Your task to perform on an android device: open app "Firefox Browser" (install if not already installed) Image 0: 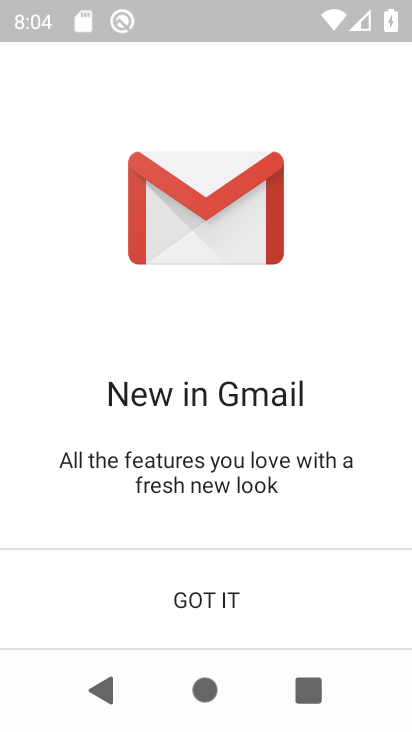
Step 0: press home button
Your task to perform on an android device: open app "Firefox Browser" (install if not already installed) Image 1: 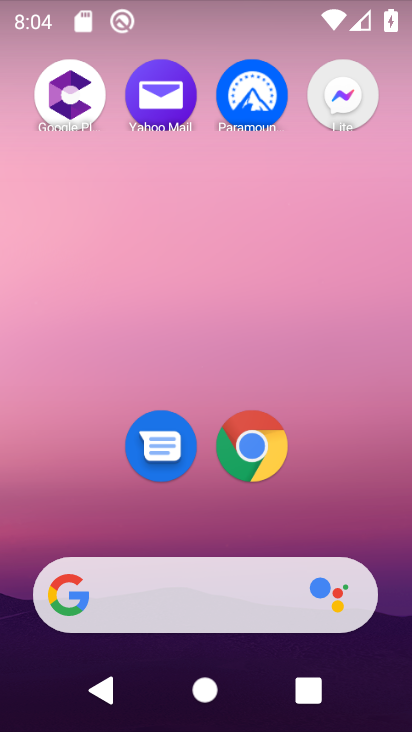
Step 1: drag from (211, 507) to (200, 114)
Your task to perform on an android device: open app "Firefox Browser" (install if not already installed) Image 2: 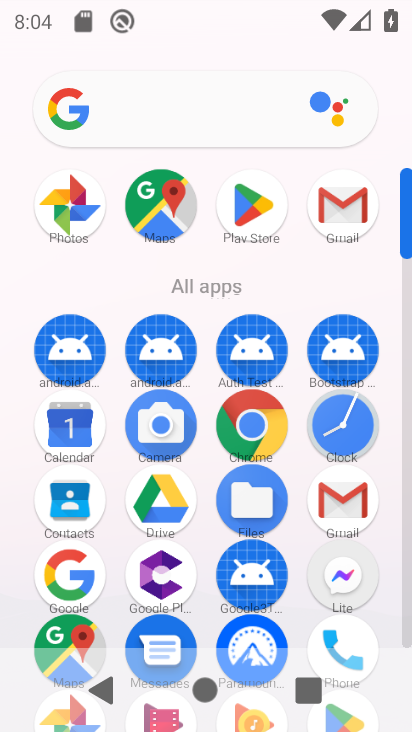
Step 2: click (248, 223)
Your task to perform on an android device: open app "Firefox Browser" (install if not already installed) Image 3: 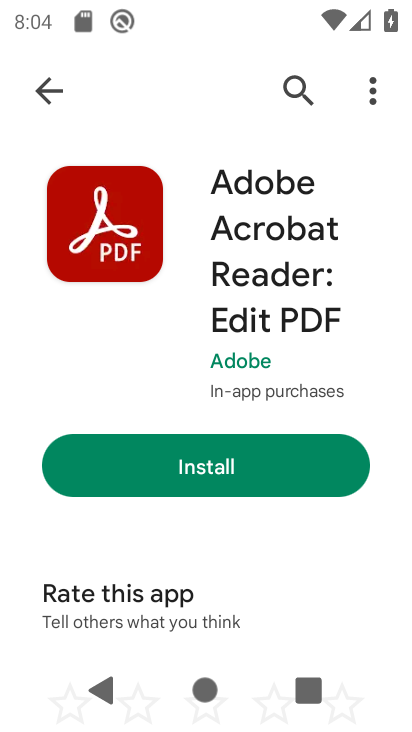
Step 3: click (305, 79)
Your task to perform on an android device: open app "Firefox Browser" (install if not already installed) Image 4: 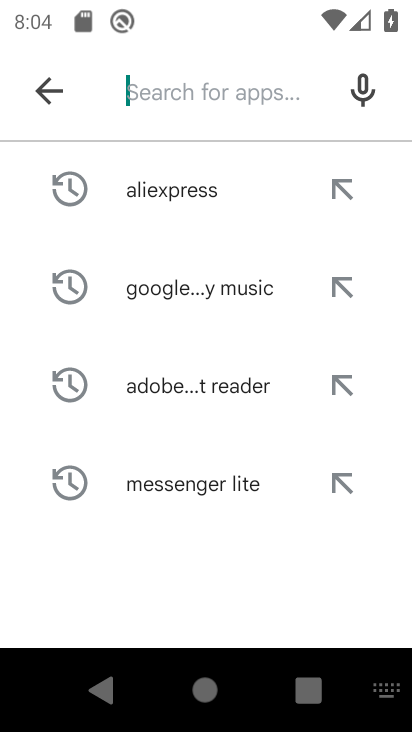
Step 4: type "Firefox Browser"
Your task to perform on an android device: open app "Firefox Browser" (install if not already installed) Image 5: 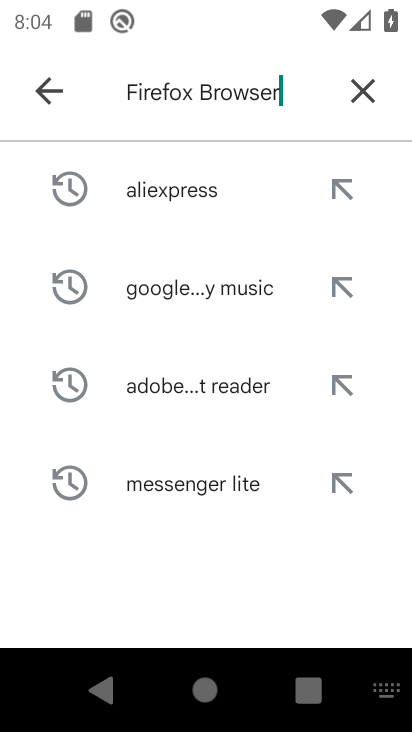
Step 5: type ""
Your task to perform on an android device: open app "Firefox Browser" (install if not already installed) Image 6: 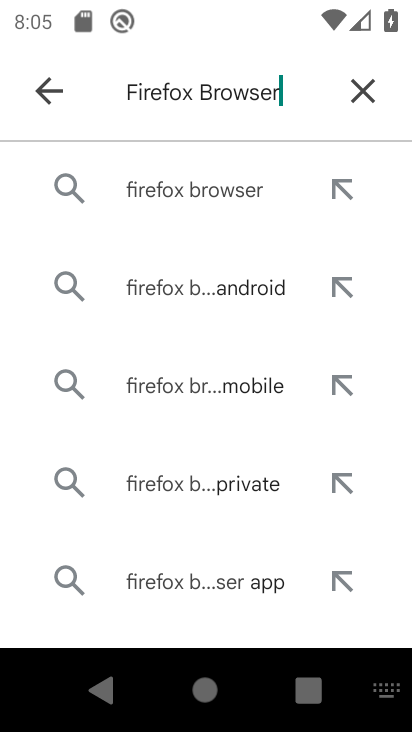
Step 6: click (211, 180)
Your task to perform on an android device: open app "Firefox Browser" (install if not already installed) Image 7: 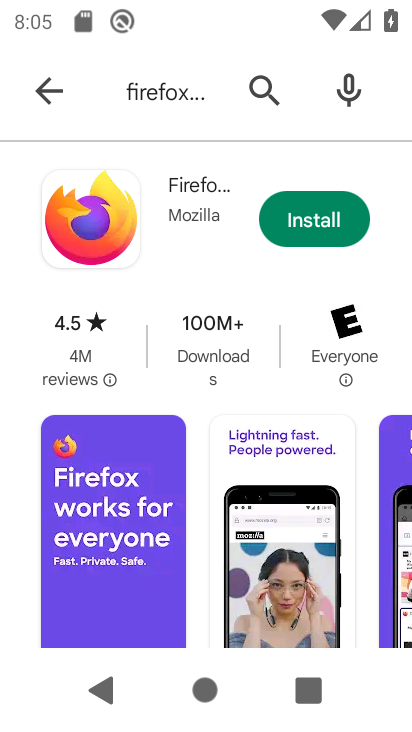
Step 7: click (281, 228)
Your task to perform on an android device: open app "Firefox Browser" (install if not already installed) Image 8: 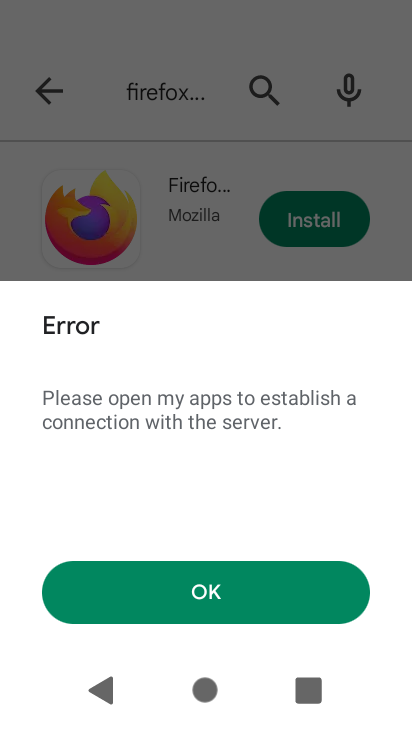
Step 8: click (242, 609)
Your task to perform on an android device: open app "Firefox Browser" (install if not already installed) Image 9: 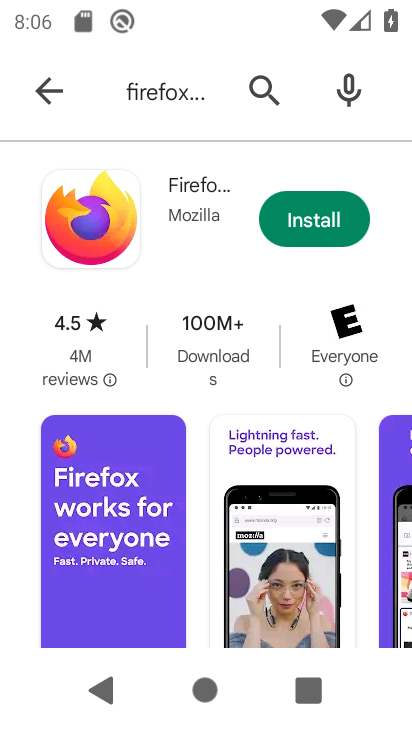
Step 9: click (295, 166)
Your task to perform on an android device: open app "Firefox Browser" (install if not already installed) Image 10: 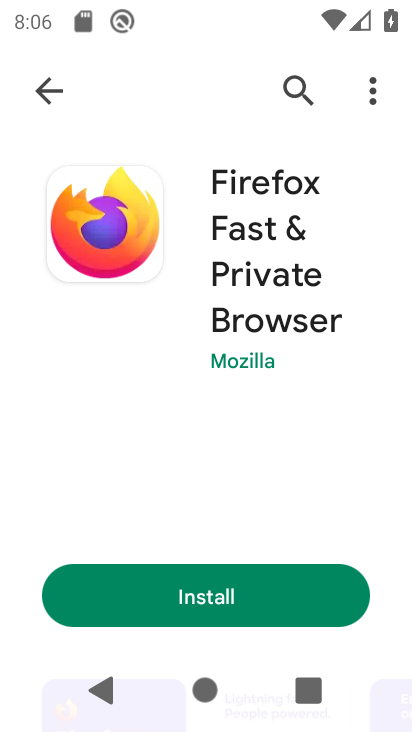
Step 10: click (302, 198)
Your task to perform on an android device: open app "Firefox Browser" (install if not already installed) Image 11: 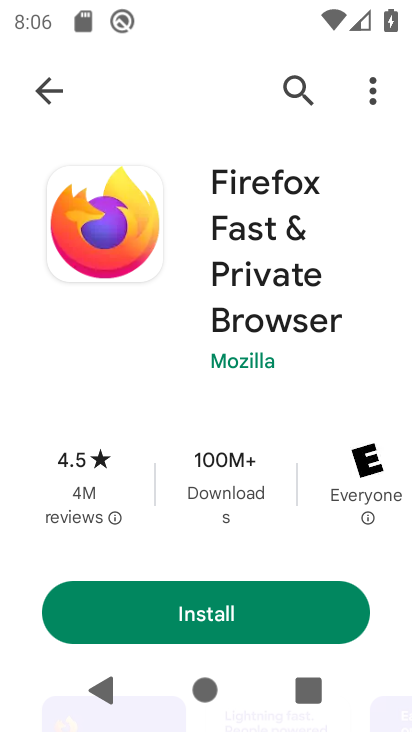
Step 11: click (211, 630)
Your task to perform on an android device: open app "Firefox Browser" (install if not already installed) Image 12: 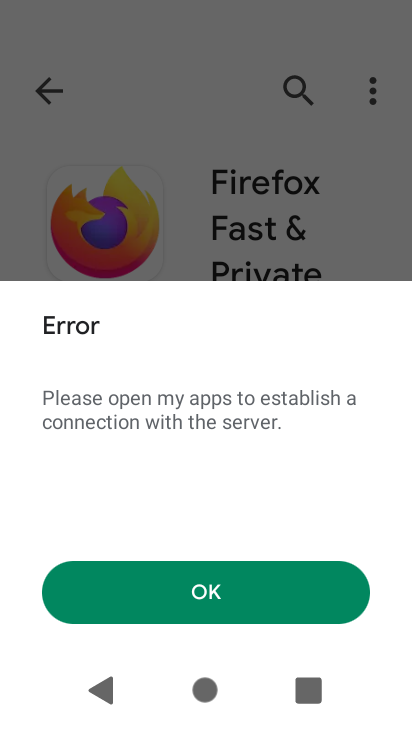
Step 12: click (201, 581)
Your task to perform on an android device: open app "Firefox Browser" (install if not already installed) Image 13: 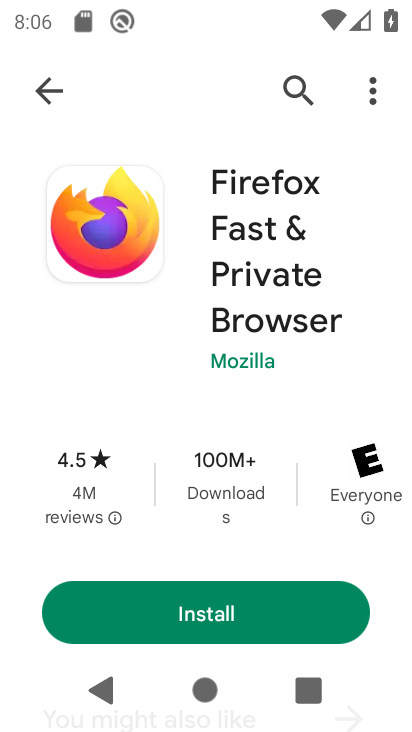
Step 13: task complete